Your task to perform on an android device: Go to ESPN.com Image 0: 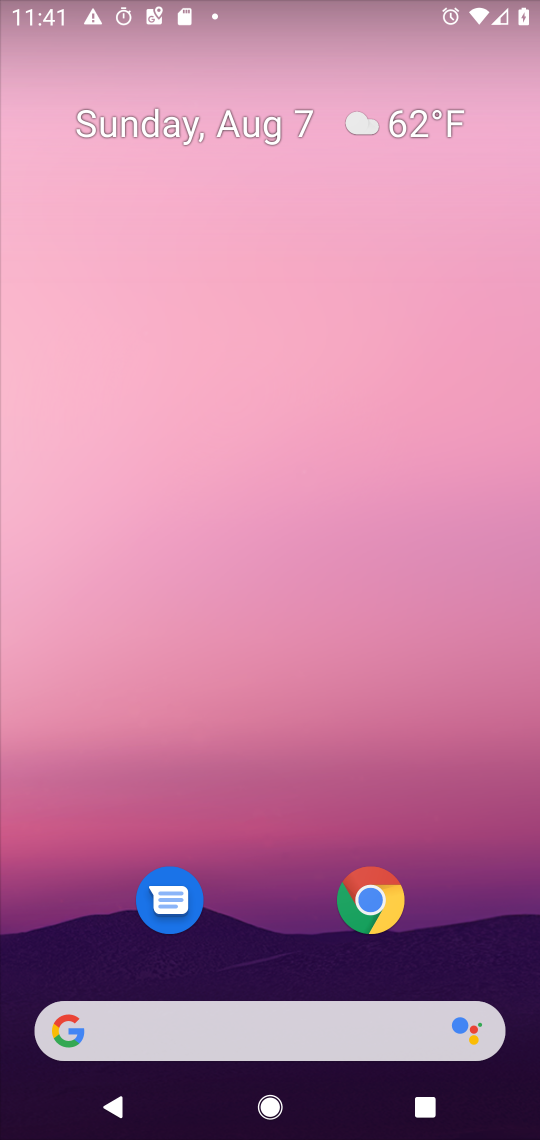
Step 0: press home button
Your task to perform on an android device: Go to ESPN.com Image 1: 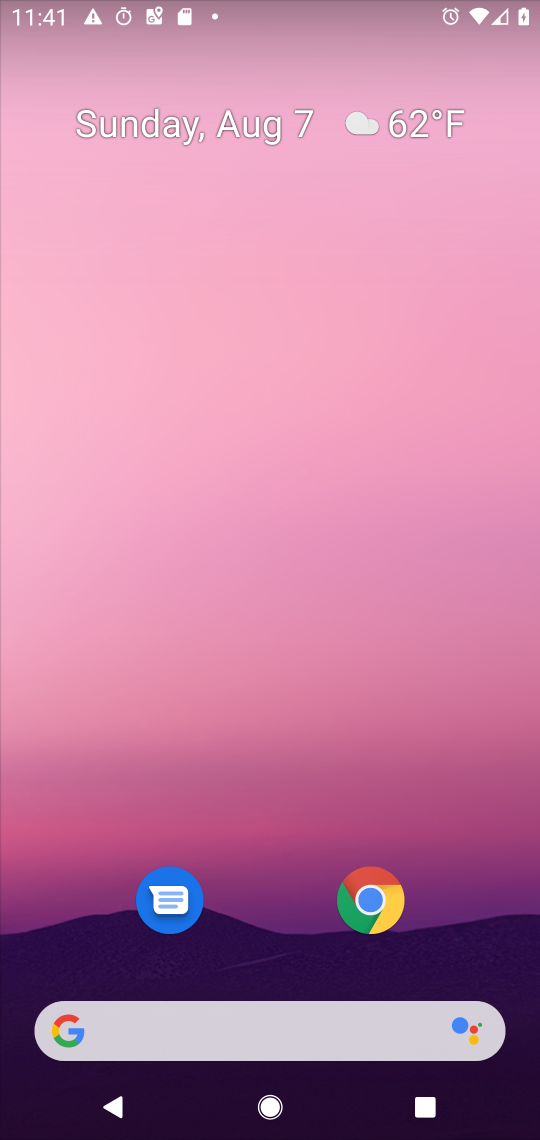
Step 1: drag from (283, 971) to (271, 203)
Your task to perform on an android device: Go to ESPN.com Image 2: 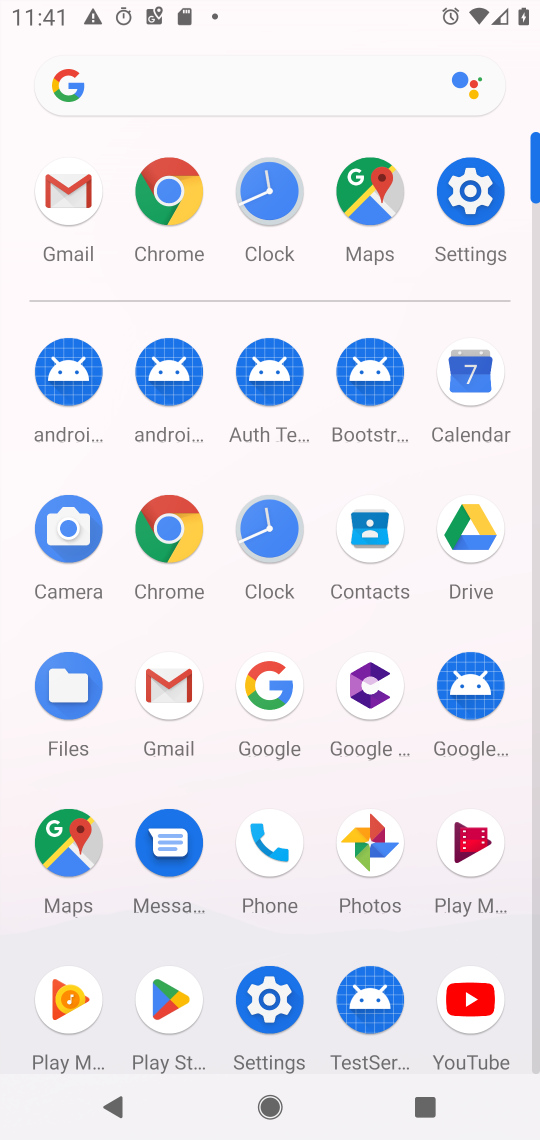
Step 2: click (173, 521)
Your task to perform on an android device: Go to ESPN.com Image 3: 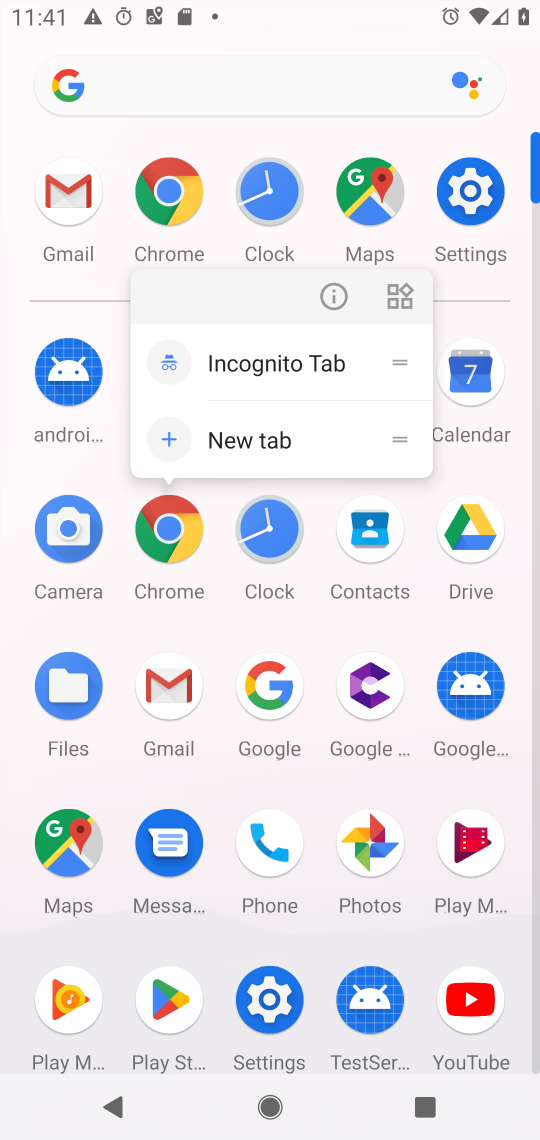
Step 3: click (173, 521)
Your task to perform on an android device: Go to ESPN.com Image 4: 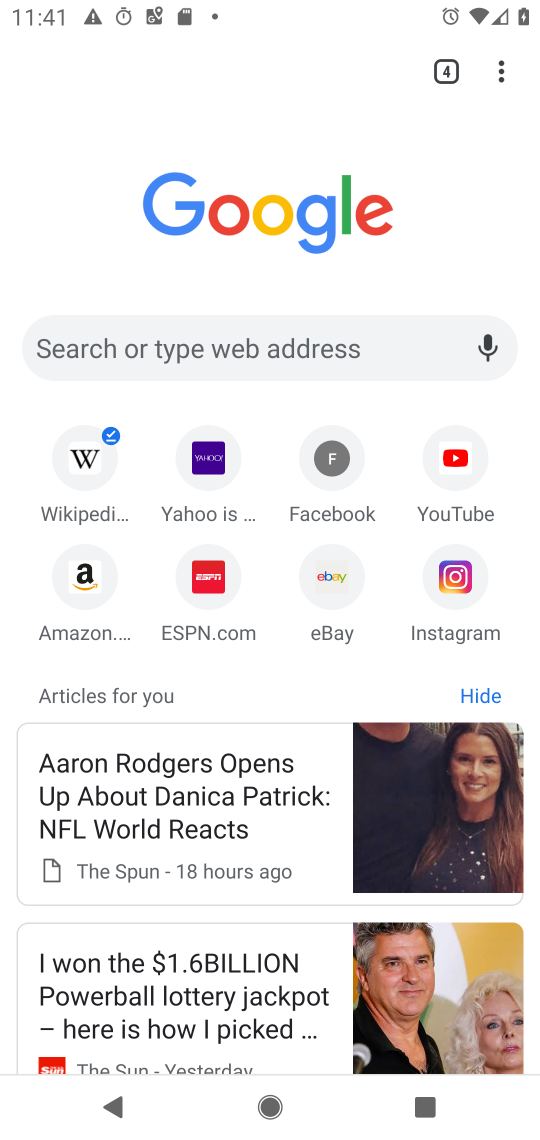
Step 4: click (206, 578)
Your task to perform on an android device: Go to ESPN.com Image 5: 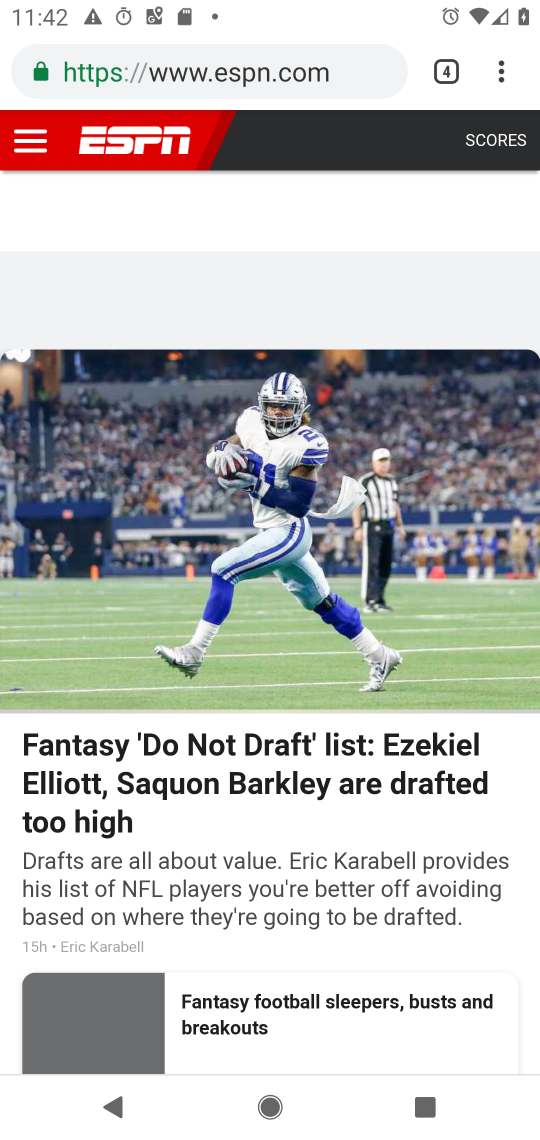
Step 5: task complete